Your task to perform on an android device: Open the calculator Image 0: 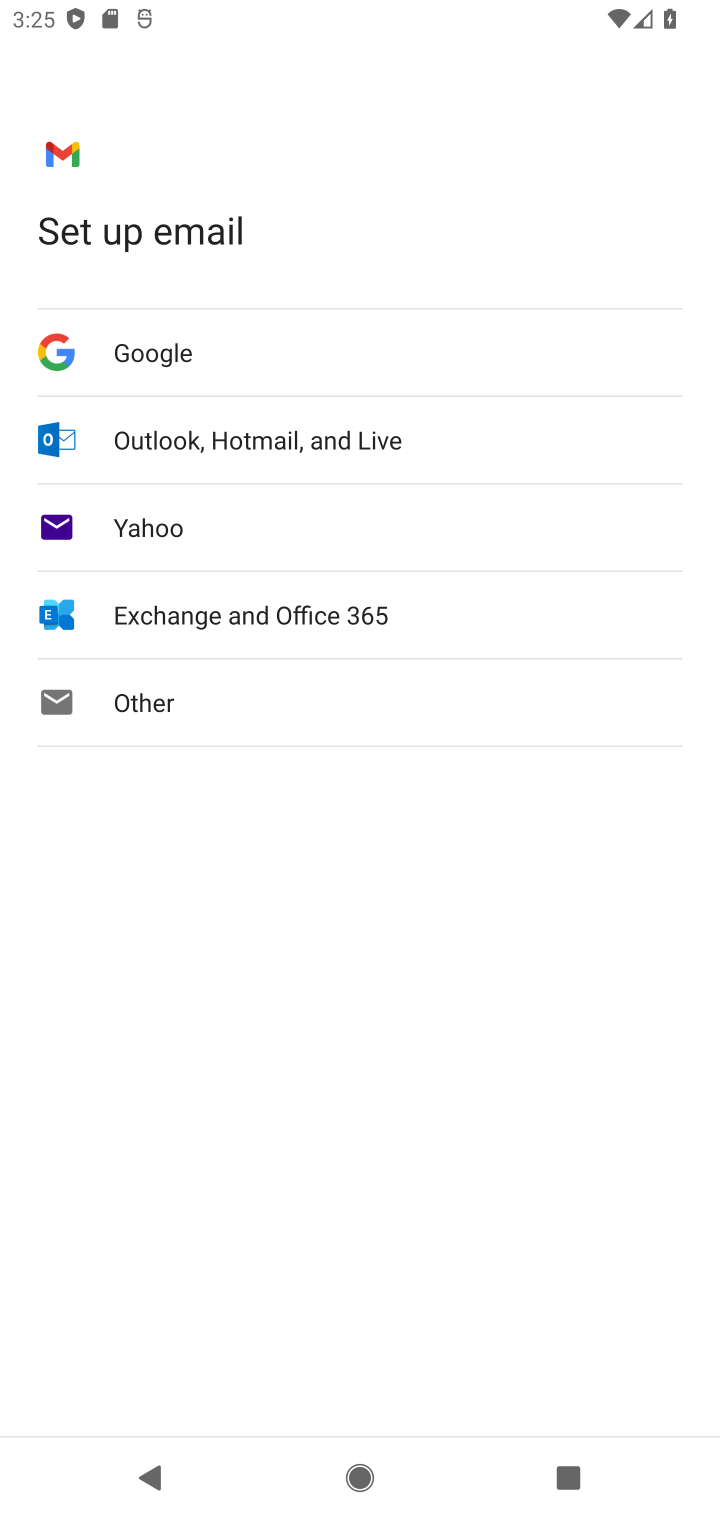
Step 0: press home button
Your task to perform on an android device: Open the calculator Image 1: 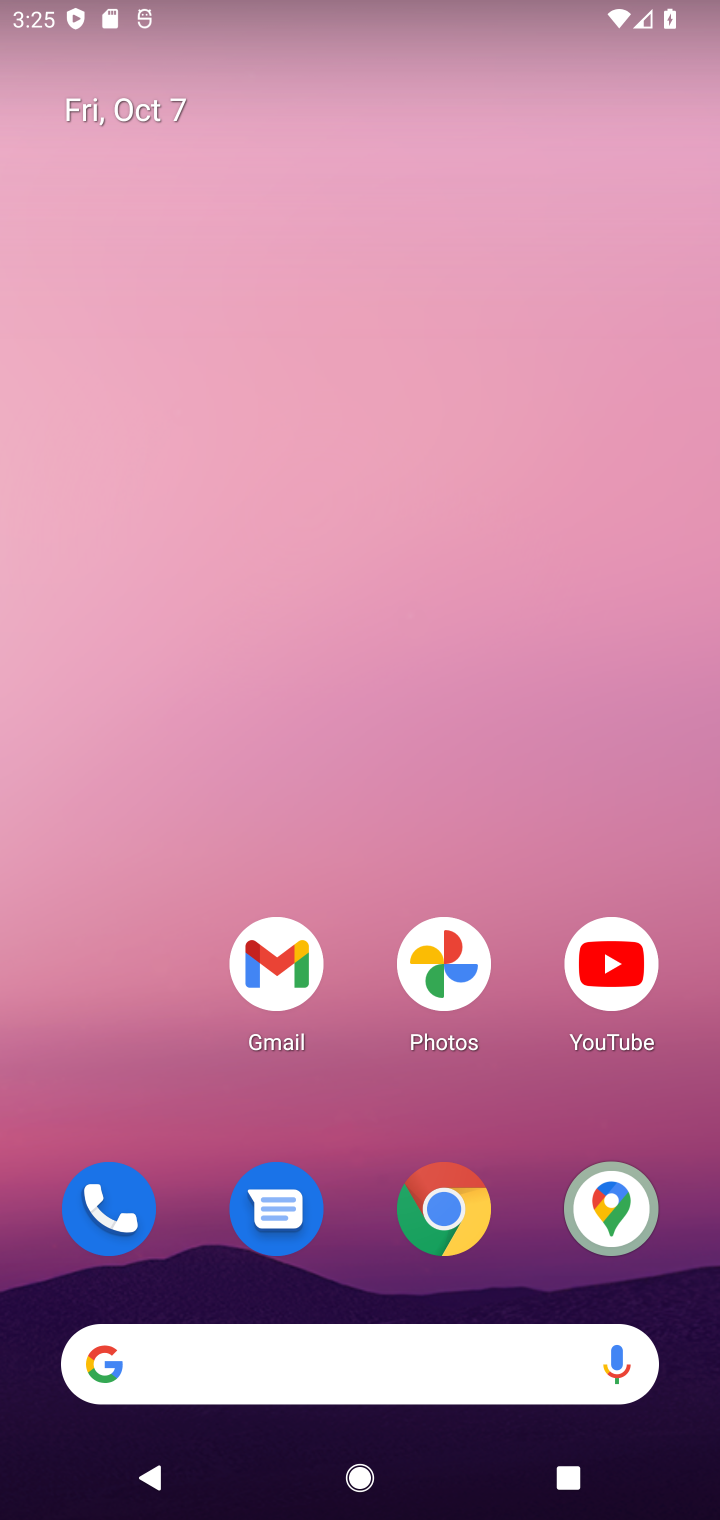
Step 1: drag from (105, 1051) to (103, 98)
Your task to perform on an android device: Open the calculator Image 2: 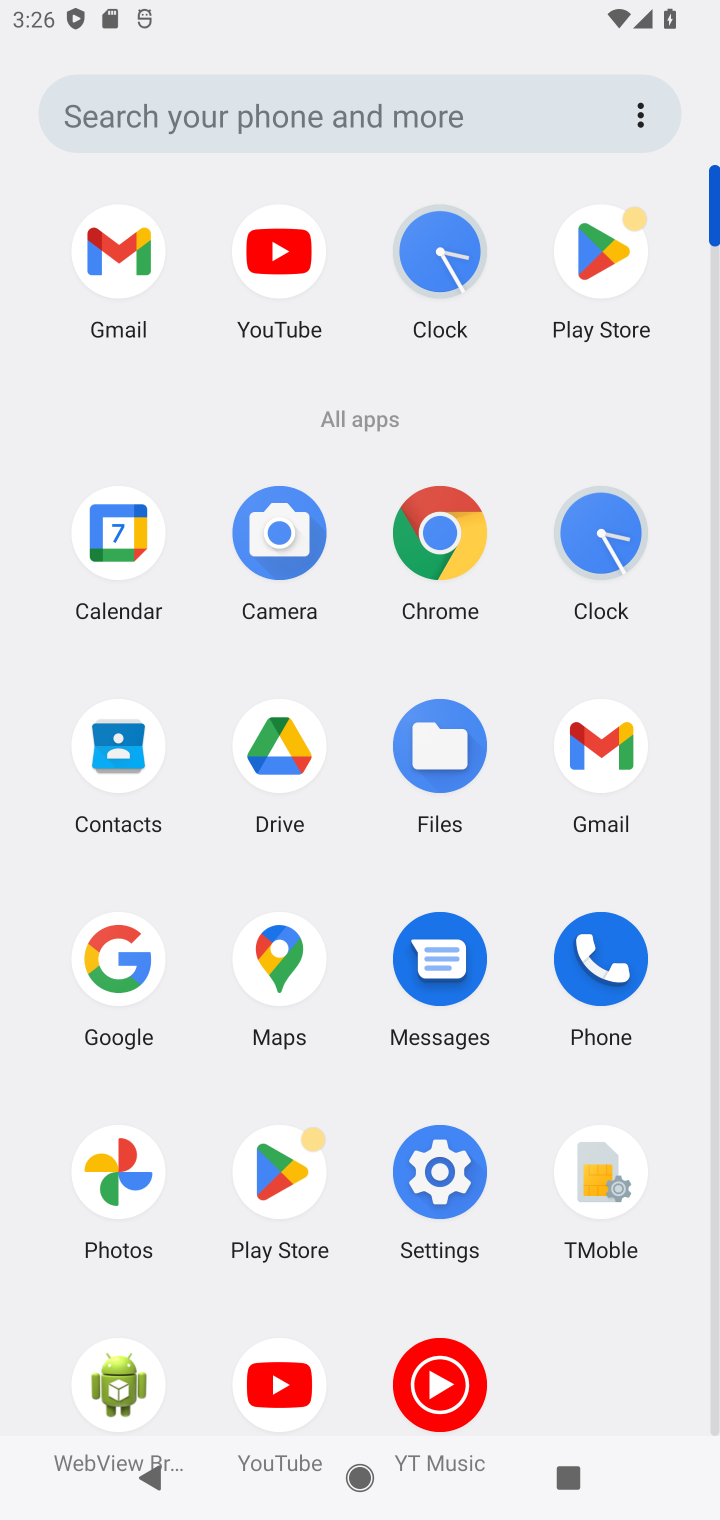
Step 2: click (120, 517)
Your task to perform on an android device: Open the calculator Image 3: 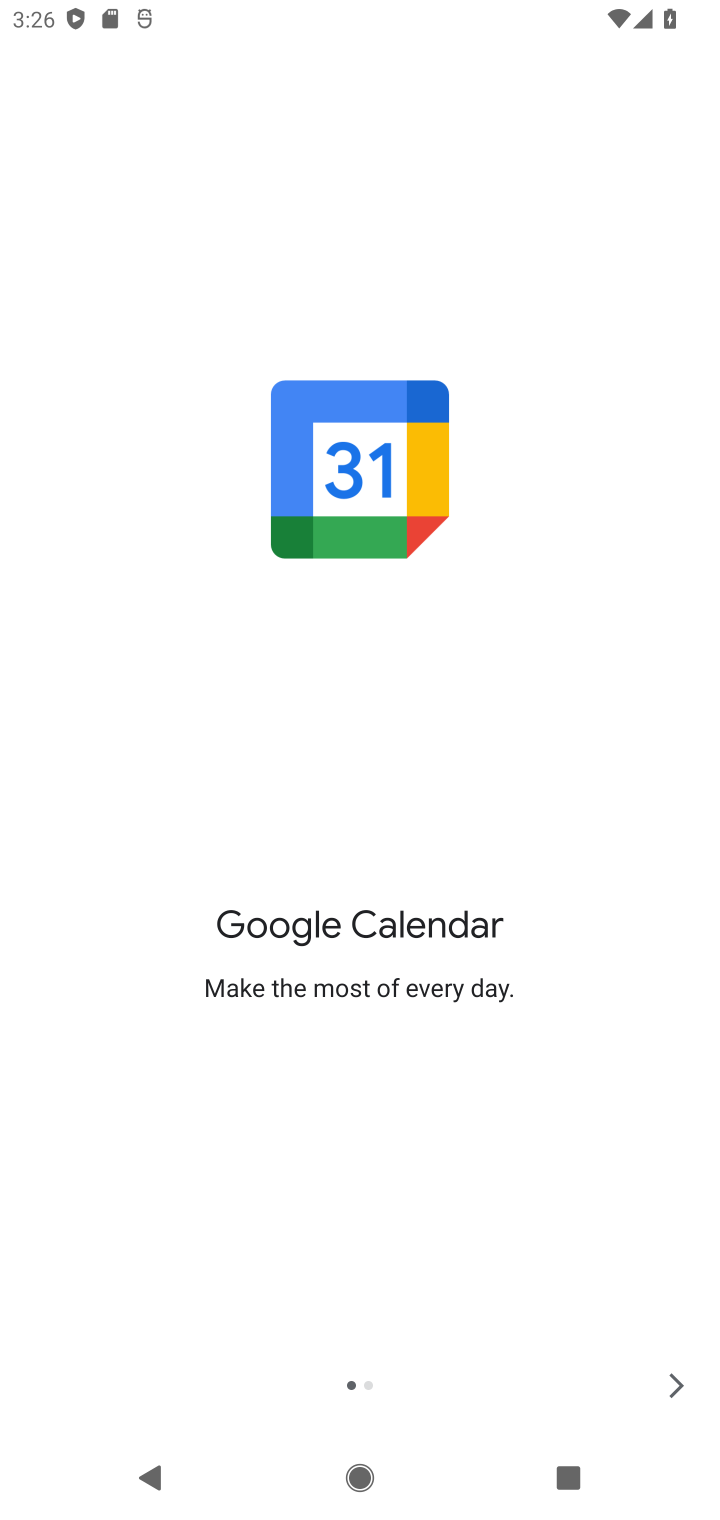
Step 3: click (655, 1381)
Your task to perform on an android device: Open the calculator Image 4: 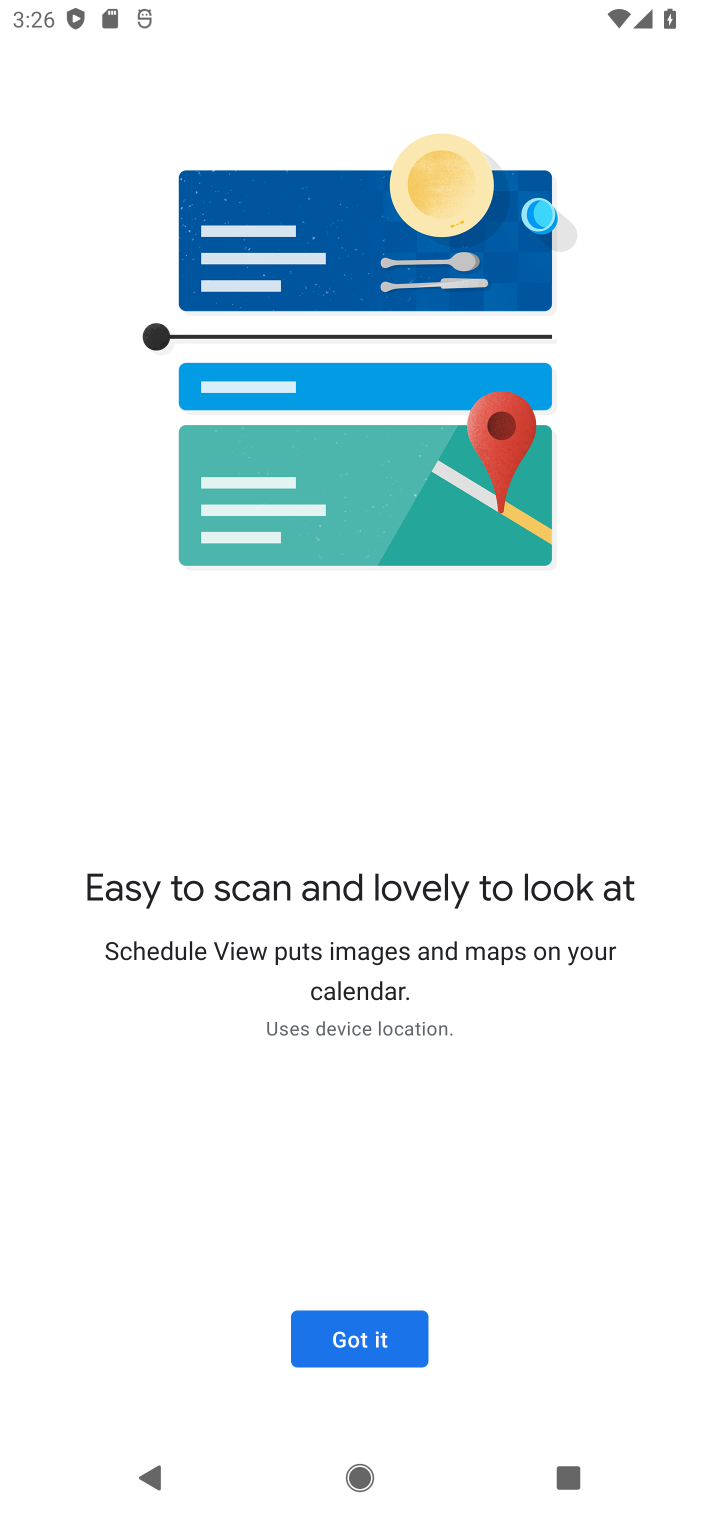
Step 4: click (340, 1346)
Your task to perform on an android device: Open the calculator Image 5: 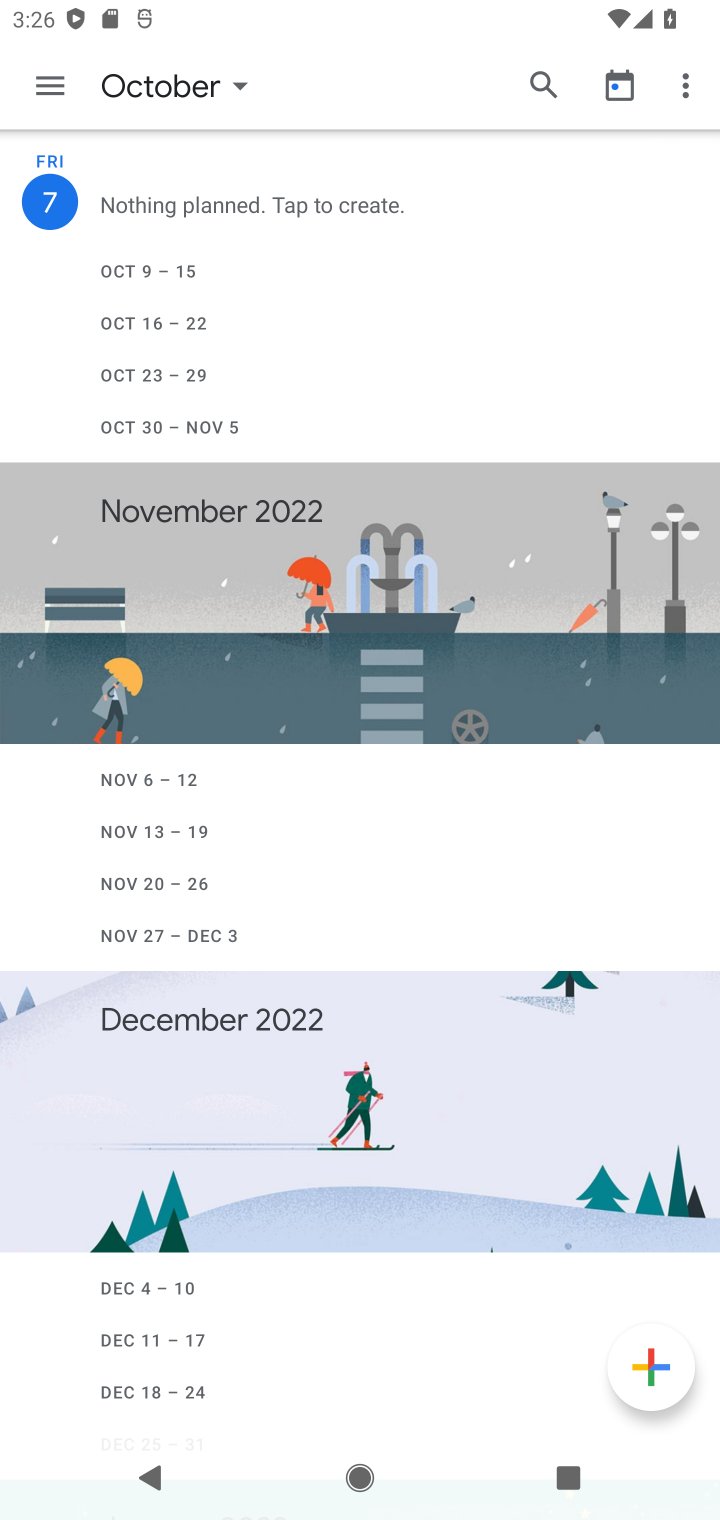
Step 5: task complete